Your task to perform on an android device: Open the web browser Image 0: 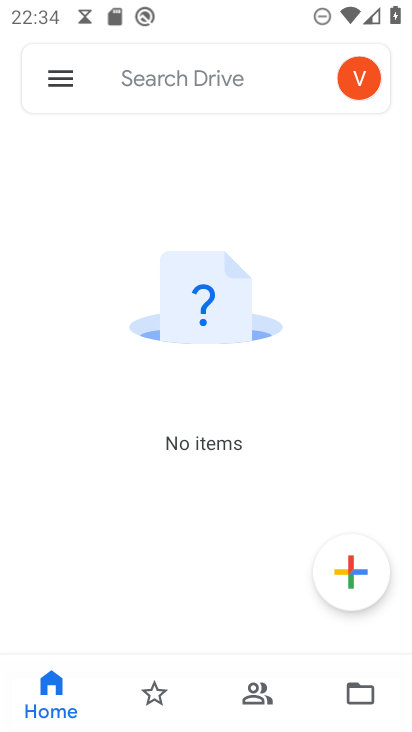
Step 0: press home button
Your task to perform on an android device: Open the web browser Image 1: 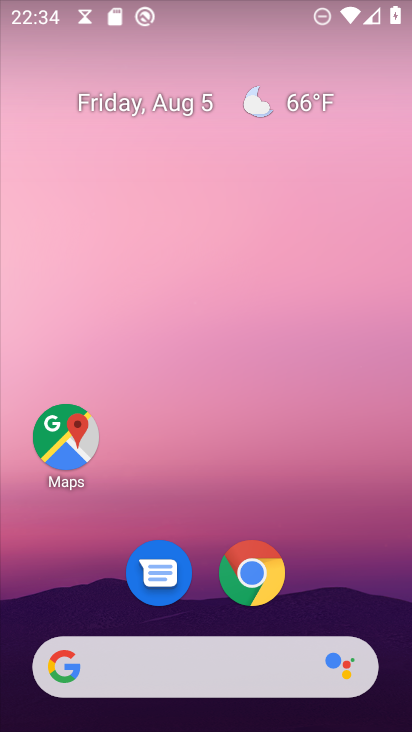
Step 1: click (250, 573)
Your task to perform on an android device: Open the web browser Image 2: 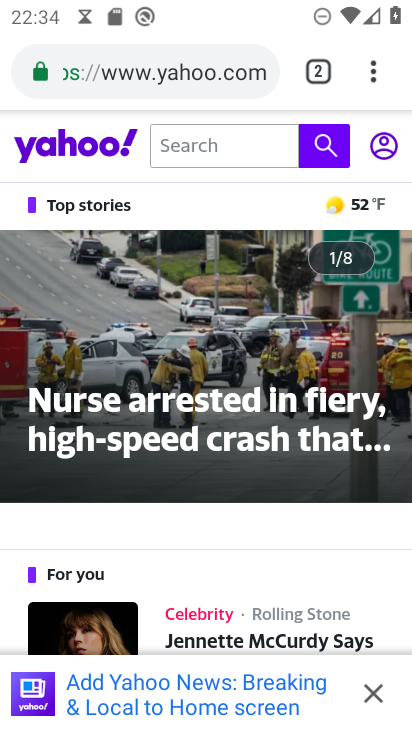
Step 2: task complete